Your task to perform on an android device: Open Youtube and go to "Your channel" Image 0: 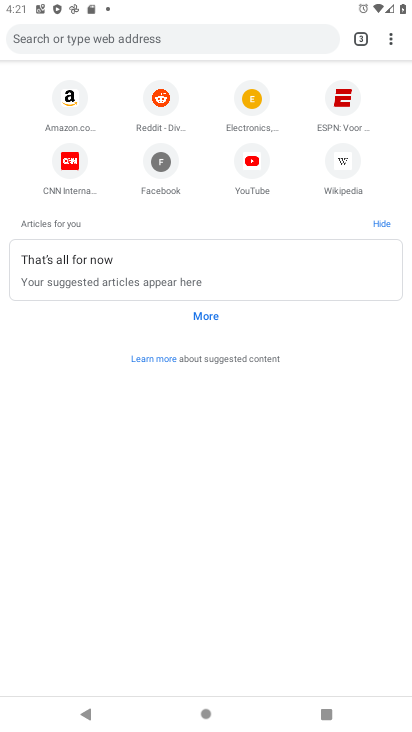
Step 0: press home button
Your task to perform on an android device: Open Youtube and go to "Your channel" Image 1: 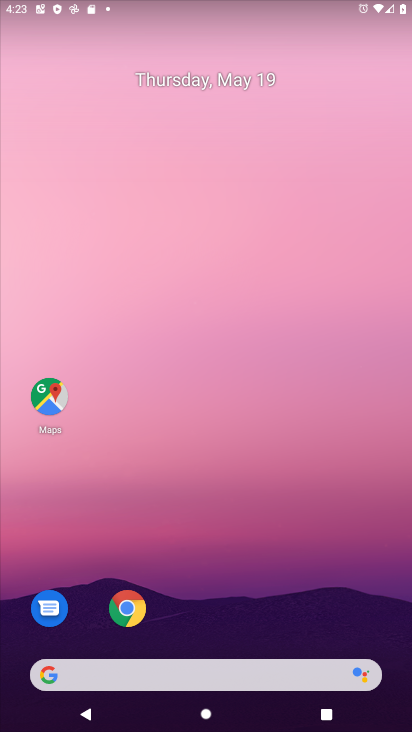
Step 1: drag from (295, 619) to (276, 110)
Your task to perform on an android device: Open Youtube and go to "Your channel" Image 2: 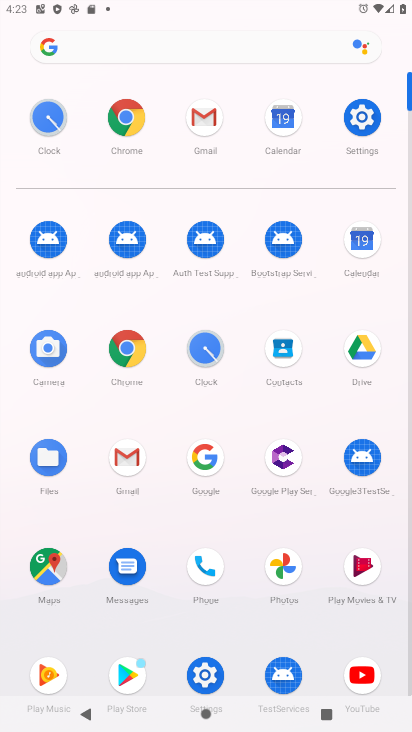
Step 2: click (356, 675)
Your task to perform on an android device: Open Youtube and go to "Your channel" Image 3: 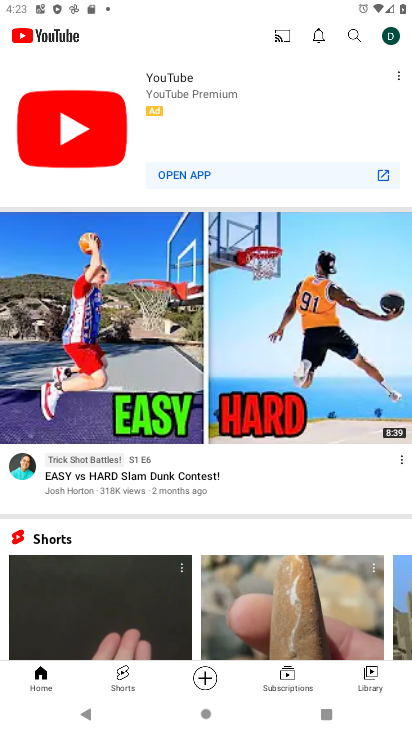
Step 3: click (388, 42)
Your task to perform on an android device: Open Youtube and go to "Your channel" Image 4: 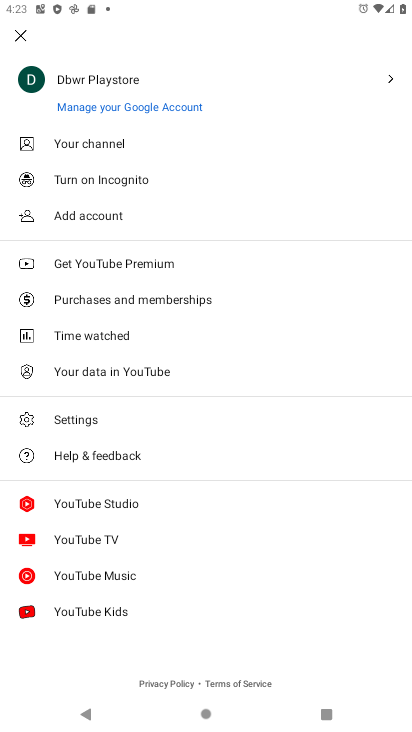
Step 4: click (182, 138)
Your task to perform on an android device: Open Youtube and go to "Your channel" Image 5: 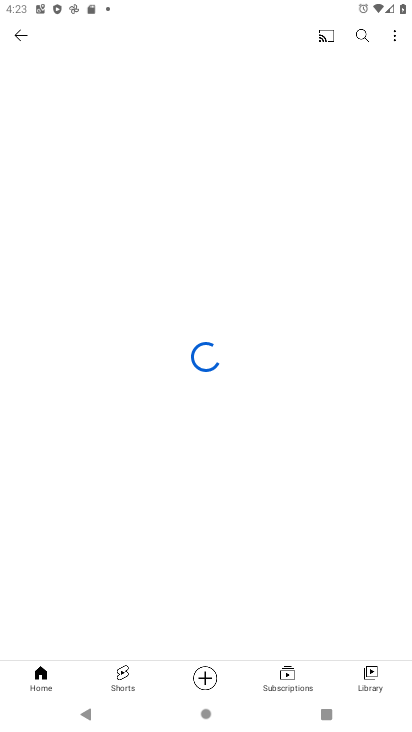
Step 5: task complete